Your task to perform on an android device: Open Yahoo.com Image 0: 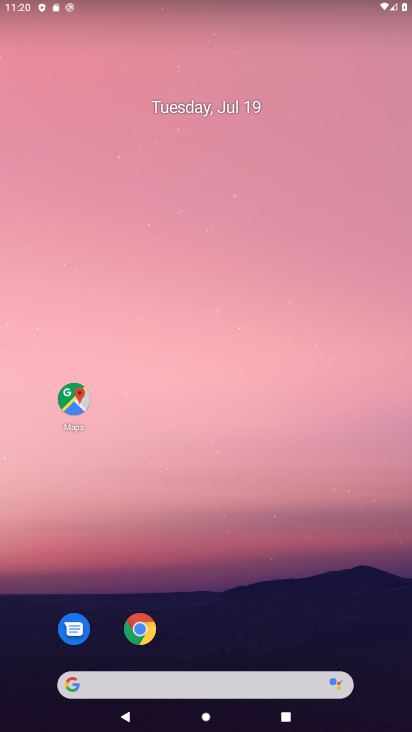
Step 0: drag from (300, 637) to (263, 94)
Your task to perform on an android device: Open Yahoo.com Image 1: 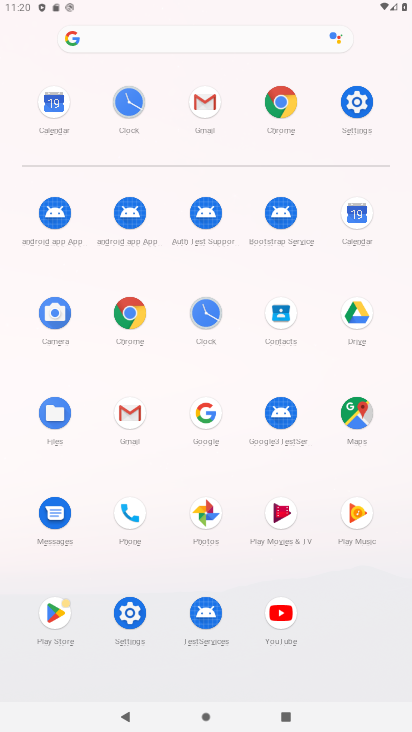
Step 1: click (130, 313)
Your task to perform on an android device: Open Yahoo.com Image 2: 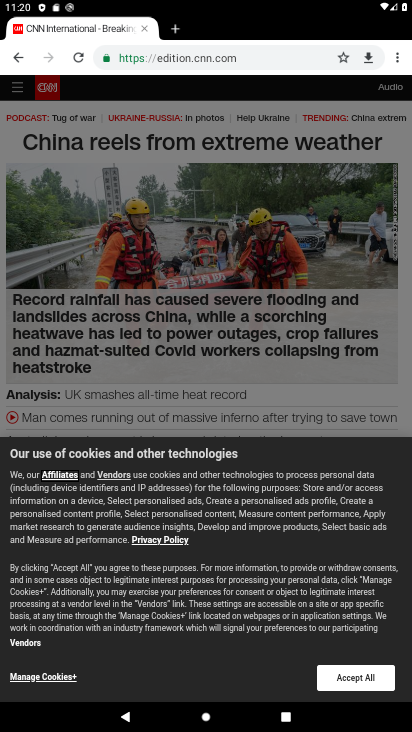
Step 2: click (231, 41)
Your task to perform on an android device: Open Yahoo.com Image 3: 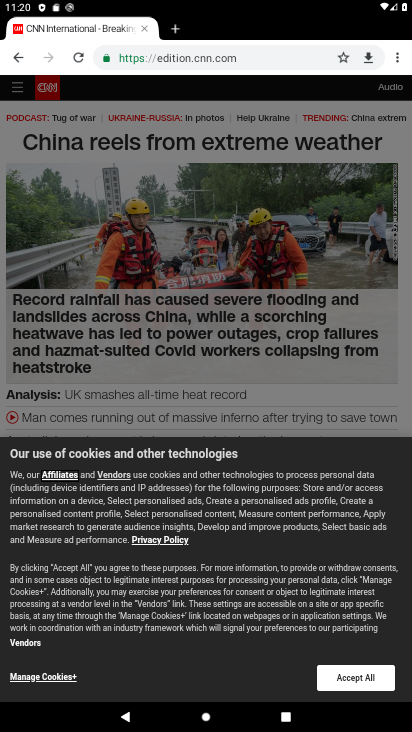
Step 3: click (242, 62)
Your task to perform on an android device: Open Yahoo.com Image 4: 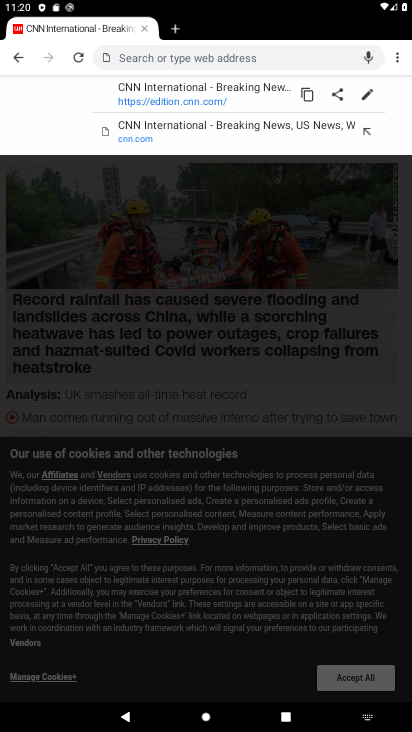
Step 4: type "yahoo.com"
Your task to perform on an android device: Open Yahoo.com Image 5: 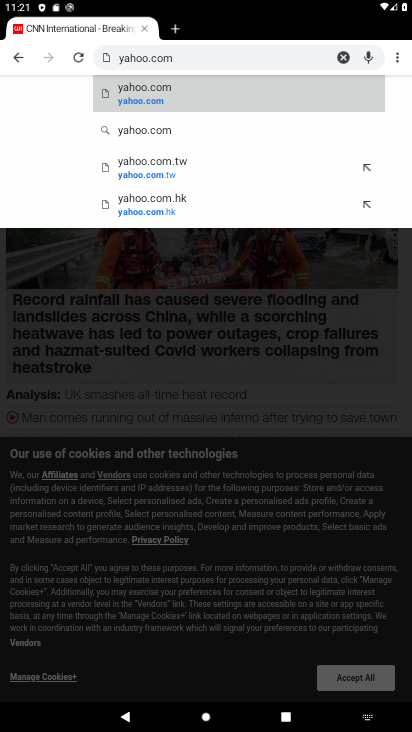
Step 5: click (133, 99)
Your task to perform on an android device: Open Yahoo.com Image 6: 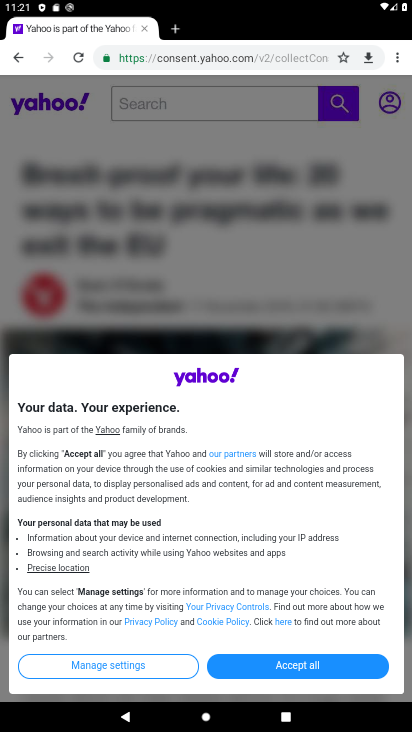
Step 6: task complete